Your task to perform on an android device: turn on sleep mode Image 0: 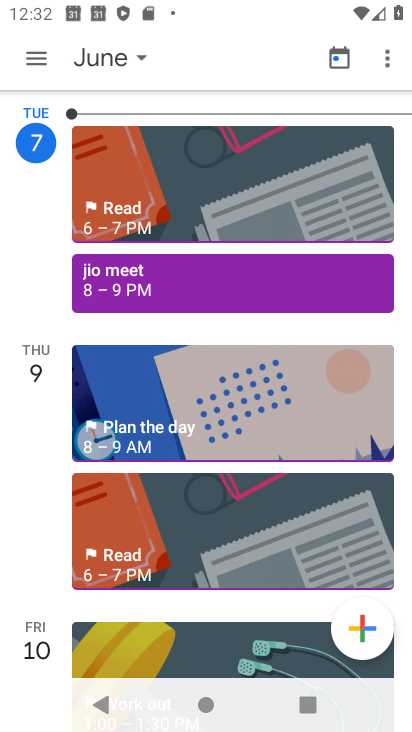
Step 0: click (410, 208)
Your task to perform on an android device: turn on sleep mode Image 1: 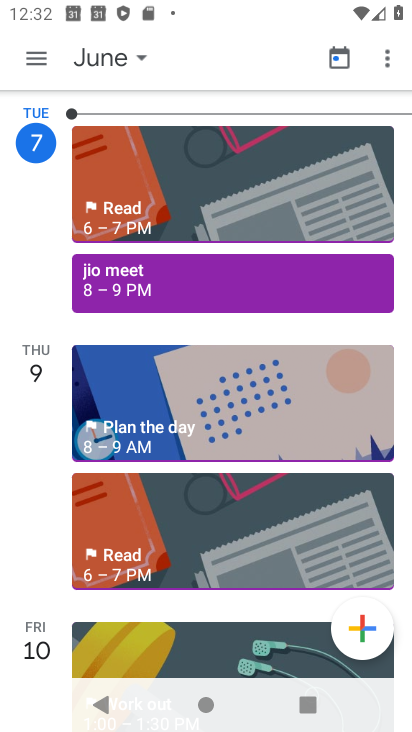
Step 1: drag from (314, 482) to (401, 186)
Your task to perform on an android device: turn on sleep mode Image 2: 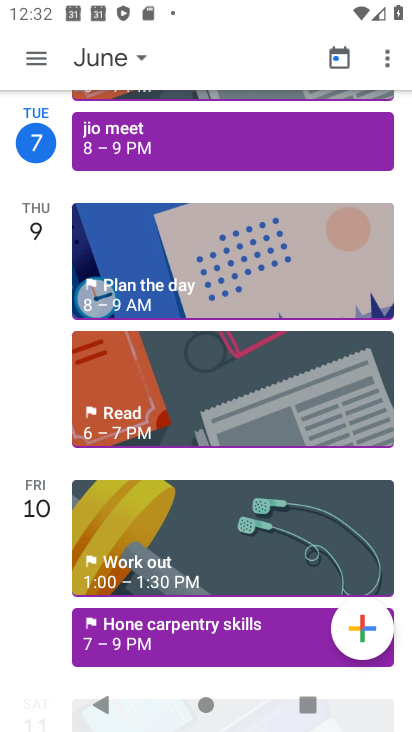
Step 2: press home button
Your task to perform on an android device: turn on sleep mode Image 3: 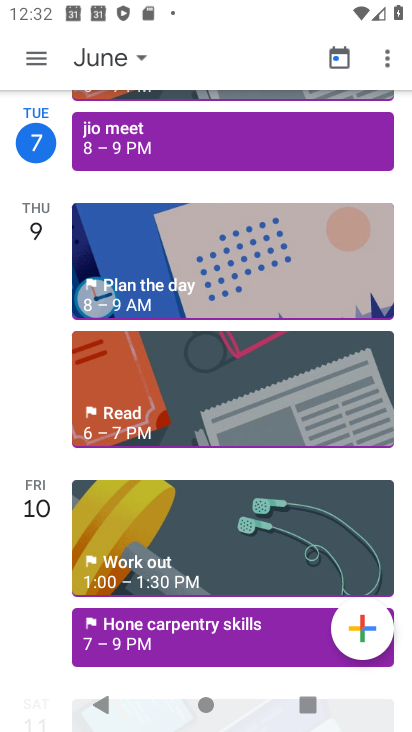
Step 3: drag from (356, 369) to (379, 44)
Your task to perform on an android device: turn on sleep mode Image 4: 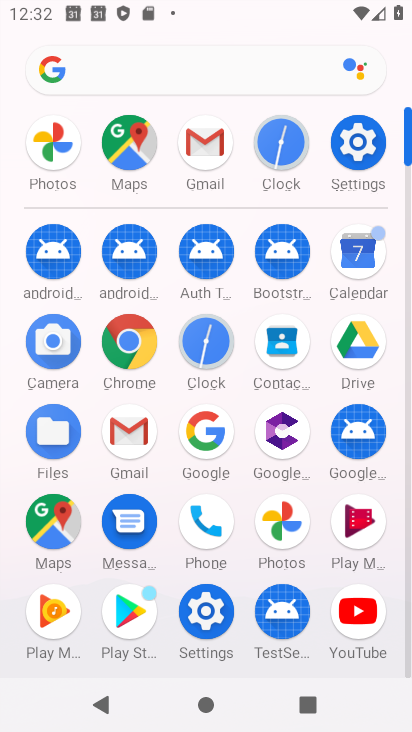
Step 4: click (353, 117)
Your task to perform on an android device: turn on sleep mode Image 5: 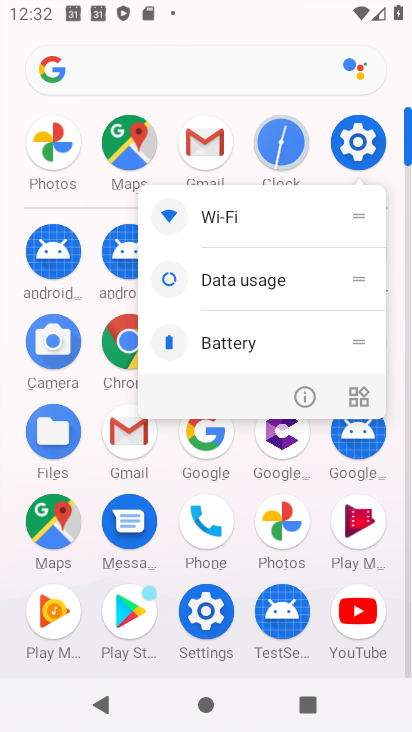
Step 5: click (297, 388)
Your task to perform on an android device: turn on sleep mode Image 6: 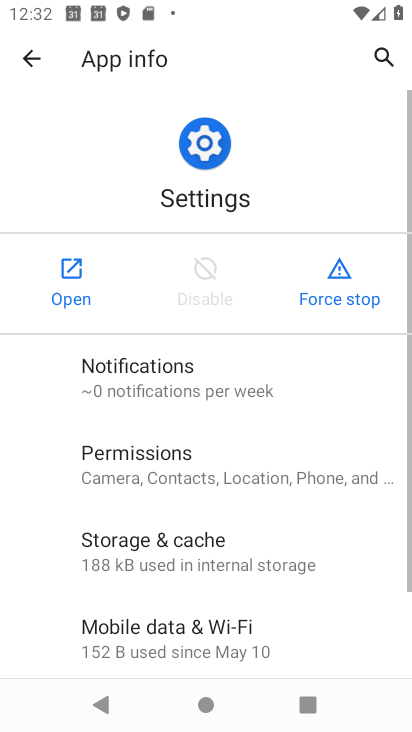
Step 6: click (58, 268)
Your task to perform on an android device: turn on sleep mode Image 7: 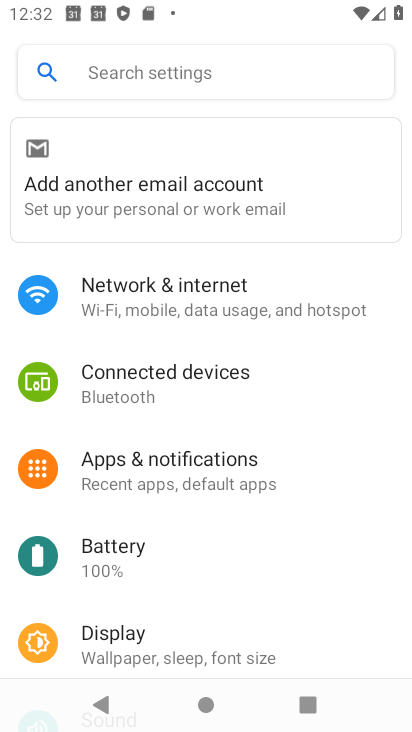
Step 7: click (98, 618)
Your task to perform on an android device: turn on sleep mode Image 8: 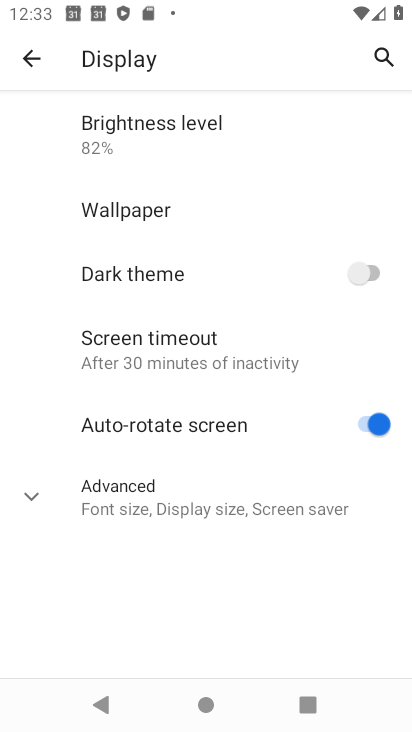
Step 8: click (222, 334)
Your task to perform on an android device: turn on sleep mode Image 9: 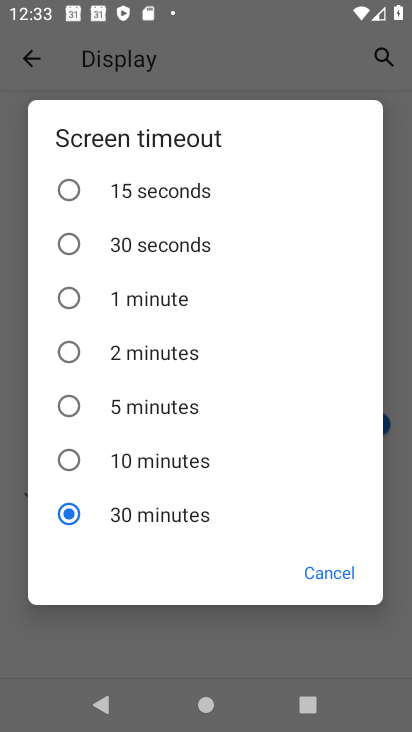
Step 9: task complete